Your task to perform on an android device: Go to internet settings Image 0: 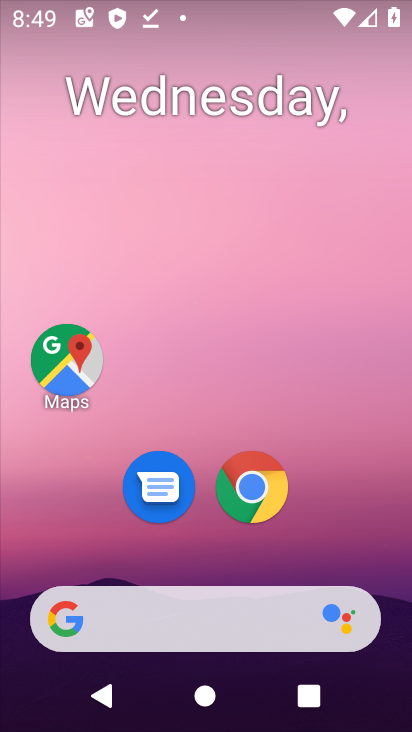
Step 0: drag from (257, 707) to (166, 5)
Your task to perform on an android device: Go to internet settings Image 1: 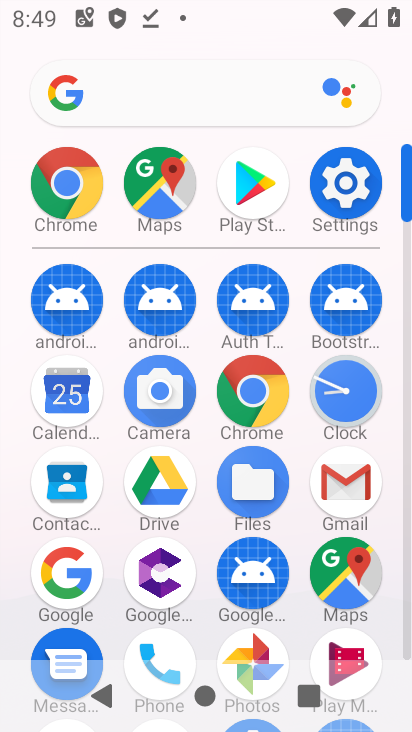
Step 1: click (348, 196)
Your task to perform on an android device: Go to internet settings Image 2: 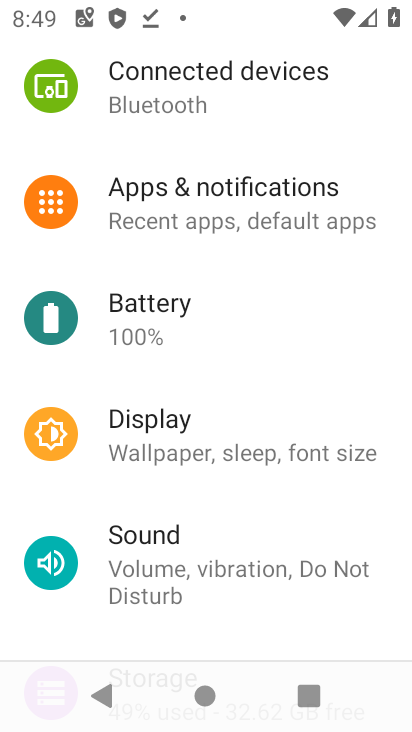
Step 2: drag from (175, 515) to (151, 179)
Your task to perform on an android device: Go to internet settings Image 3: 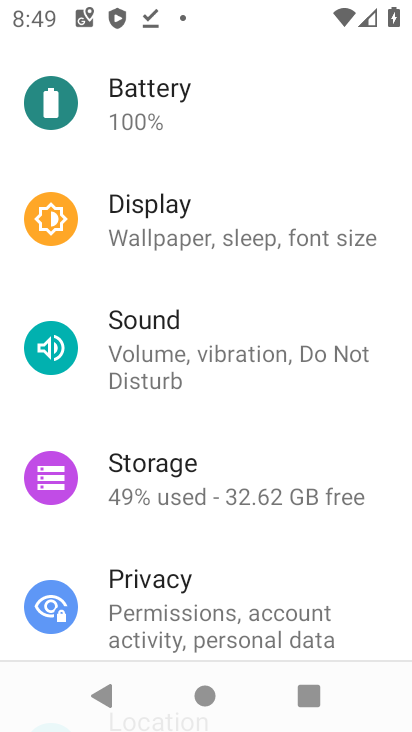
Step 3: drag from (150, 425) to (149, 120)
Your task to perform on an android device: Go to internet settings Image 4: 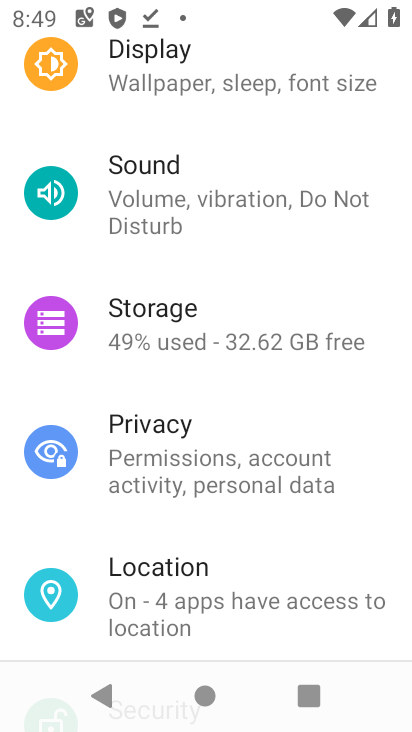
Step 4: drag from (187, 408) to (187, 138)
Your task to perform on an android device: Go to internet settings Image 5: 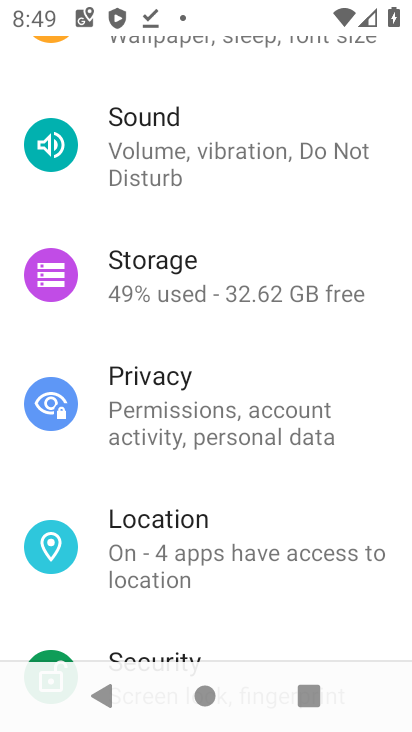
Step 5: drag from (170, 477) to (155, 257)
Your task to perform on an android device: Go to internet settings Image 6: 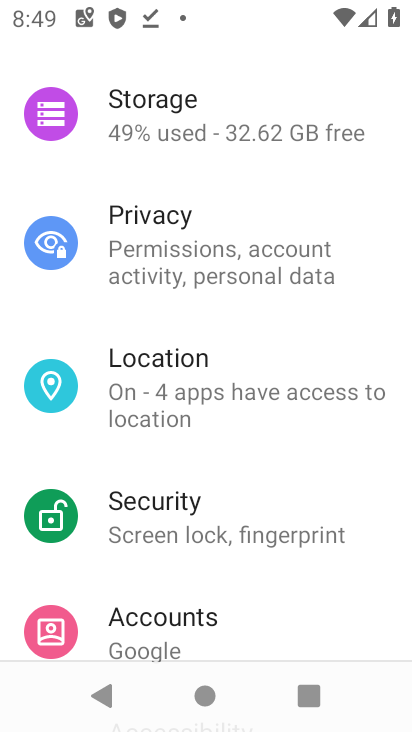
Step 6: drag from (188, 476) to (188, 251)
Your task to perform on an android device: Go to internet settings Image 7: 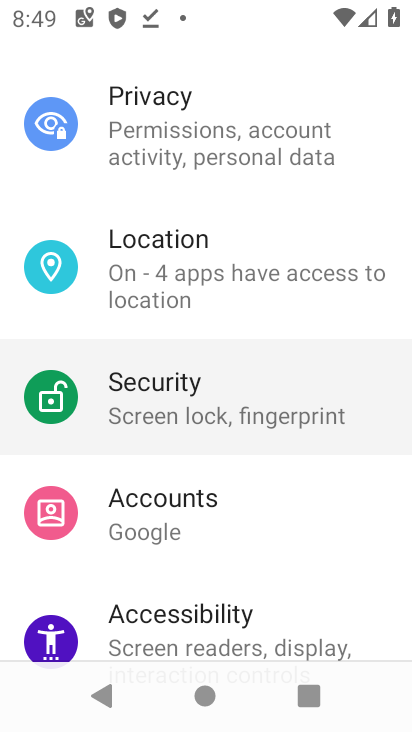
Step 7: drag from (190, 445) to (184, 116)
Your task to perform on an android device: Go to internet settings Image 8: 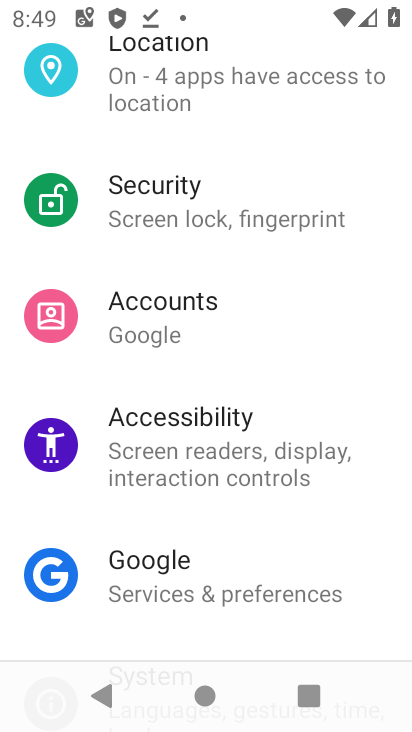
Step 8: drag from (230, 483) to (229, 149)
Your task to perform on an android device: Go to internet settings Image 9: 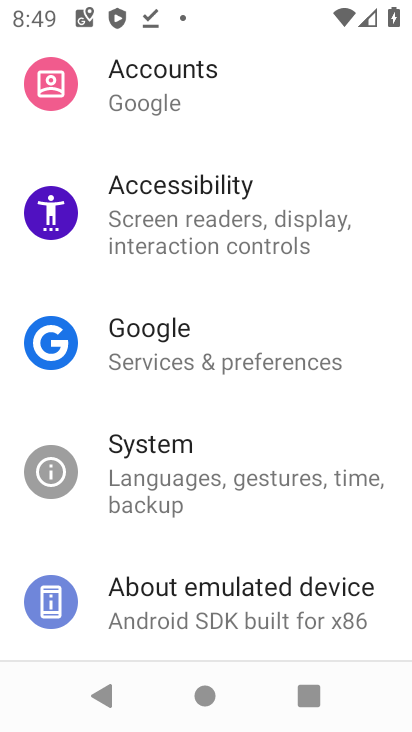
Step 9: drag from (251, 431) to (272, 79)
Your task to perform on an android device: Go to internet settings Image 10: 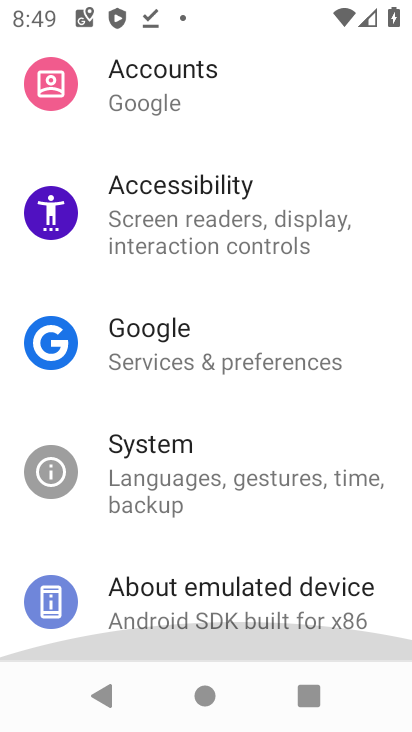
Step 10: drag from (251, 414) to (298, 18)
Your task to perform on an android device: Go to internet settings Image 11: 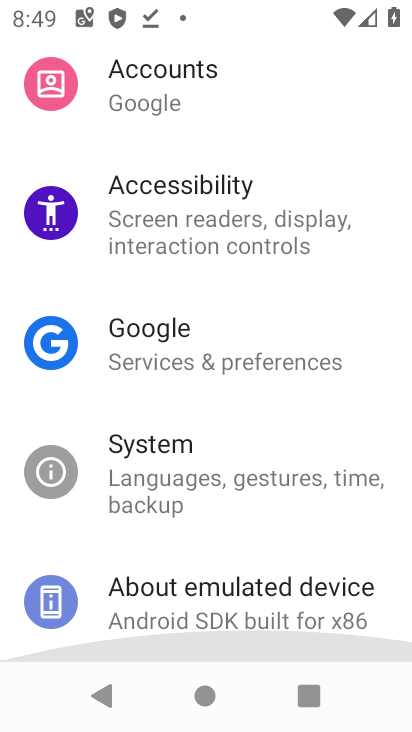
Step 11: drag from (239, 415) to (268, 145)
Your task to perform on an android device: Go to internet settings Image 12: 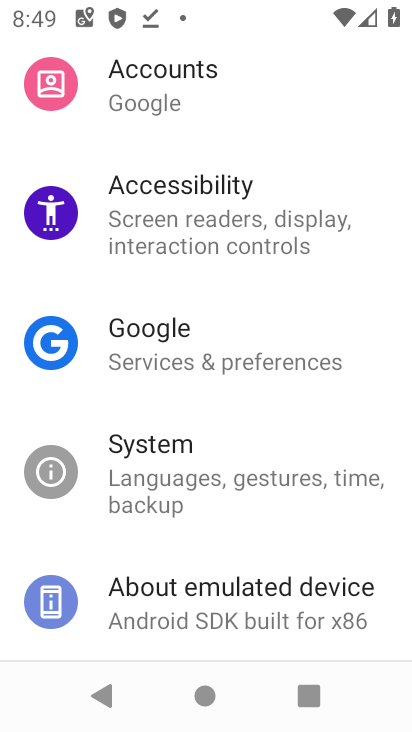
Step 12: drag from (203, 545) to (253, 8)
Your task to perform on an android device: Go to internet settings Image 13: 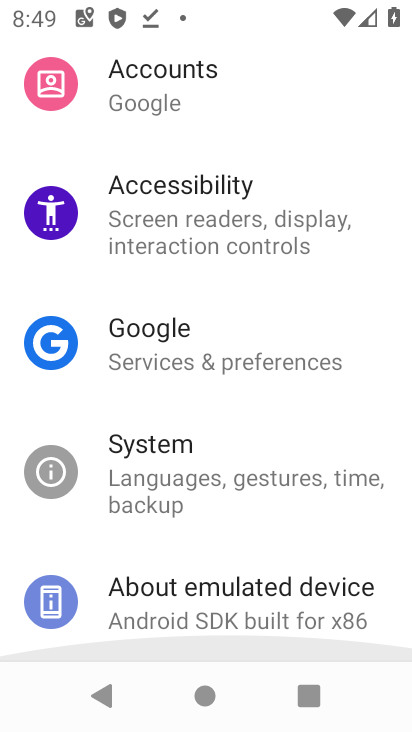
Step 13: drag from (233, 438) to (203, 187)
Your task to perform on an android device: Go to internet settings Image 14: 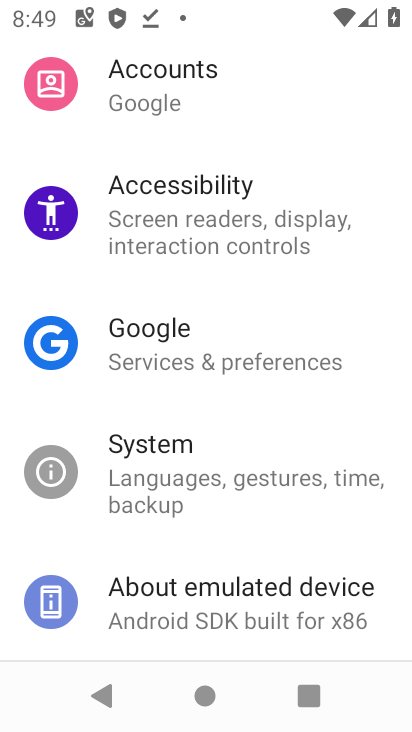
Step 14: drag from (182, 400) to (242, 617)
Your task to perform on an android device: Go to internet settings Image 15: 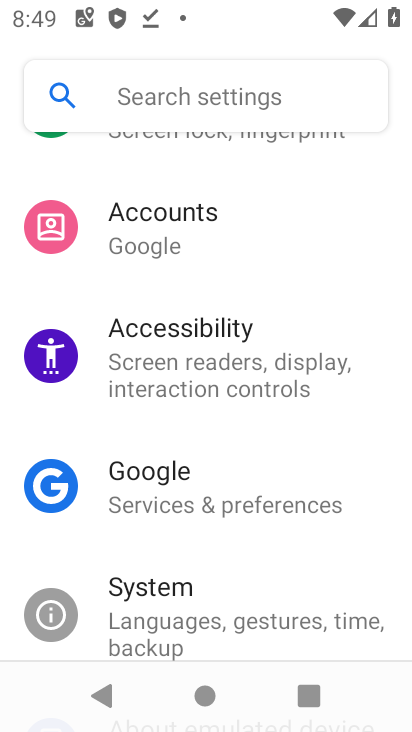
Step 15: drag from (242, 331) to (259, 635)
Your task to perform on an android device: Go to internet settings Image 16: 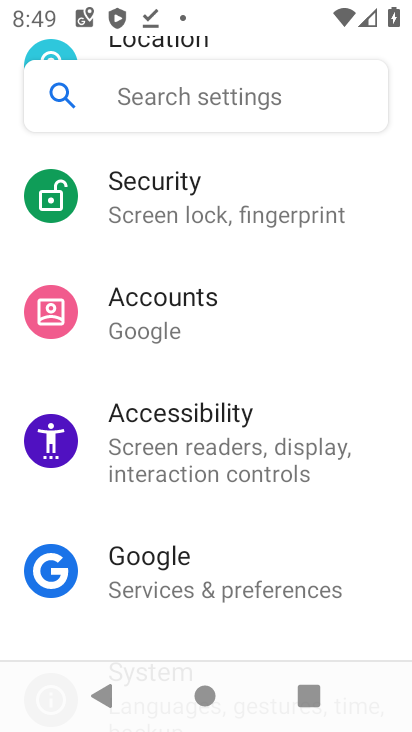
Step 16: drag from (162, 300) to (226, 511)
Your task to perform on an android device: Go to internet settings Image 17: 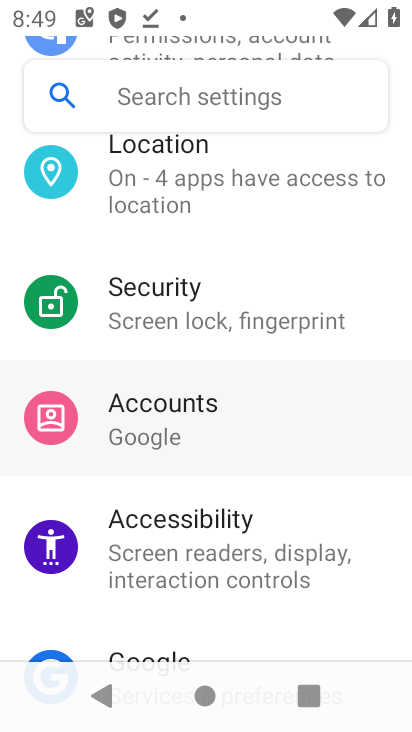
Step 17: drag from (191, 299) to (201, 698)
Your task to perform on an android device: Go to internet settings Image 18: 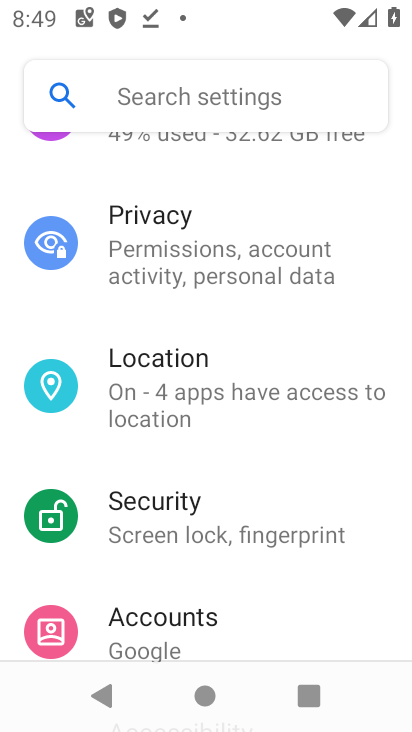
Step 18: drag from (172, 245) to (229, 561)
Your task to perform on an android device: Go to internet settings Image 19: 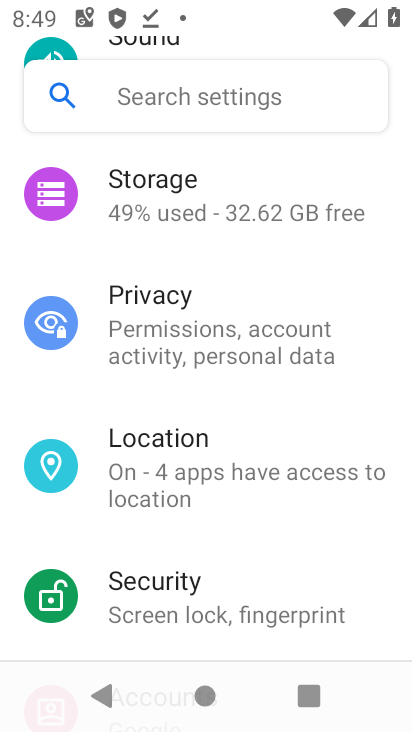
Step 19: drag from (243, 322) to (247, 503)
Your task to perform on an android device: Go to internet settings Image 20: 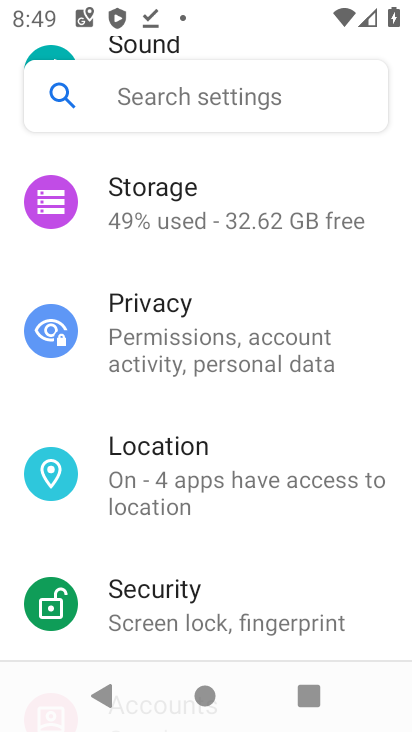
Step 20: drag from (227, 473) to (229, 643)
Your task to perform on an android device: Go to internet settings Image 21: 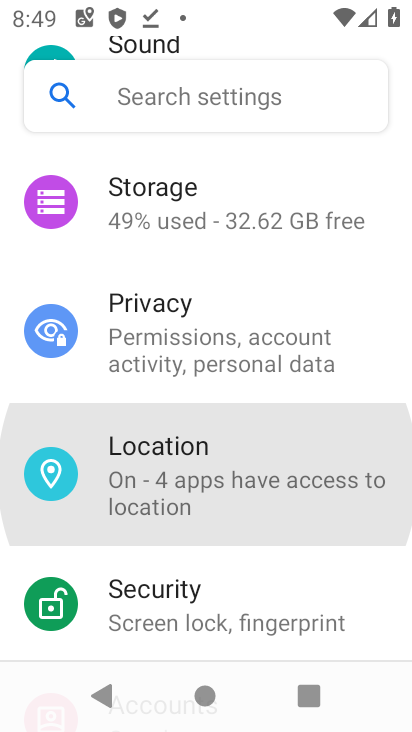
Step 21: drag from (228, 493) to (233, 571)
Your task to perform on an android device: Go to internet settings Image 22: 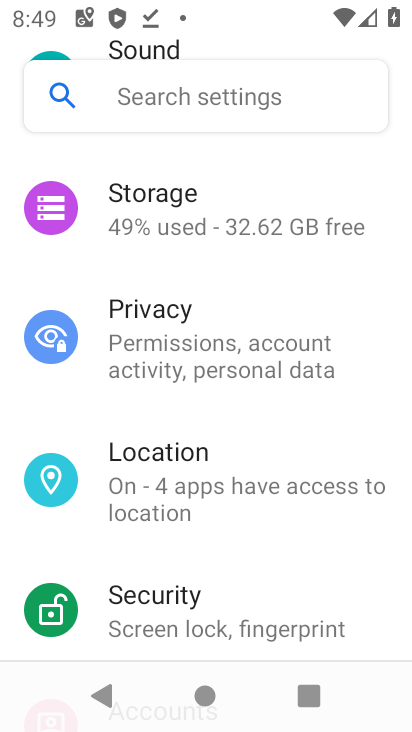
Step 22: drag from (180, 517) to (187, 581)
Your task to perform on an android device: Go to internet settings Image 23: 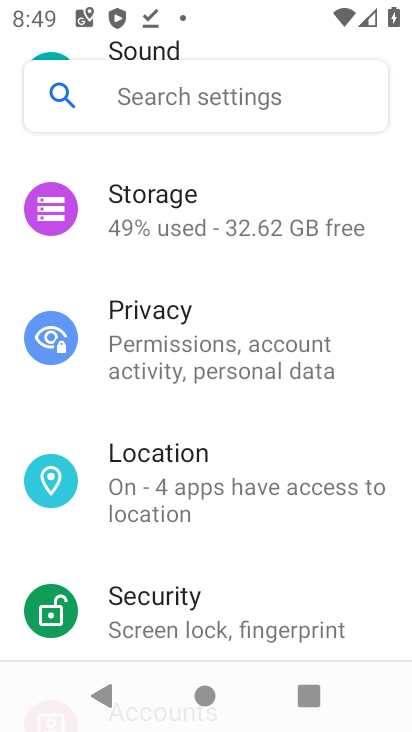
Step 23: drag from (149, 283) to (225, 547)
Your task to perform on an android device: Go to internet settings Image 24: 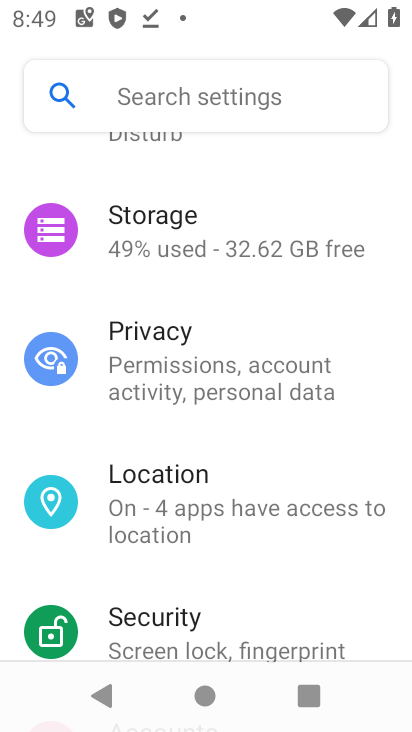
Step 24: drag from (216, 283) to (251, 525)
Your task to perform on an android device: Go to internet settings Image 25: 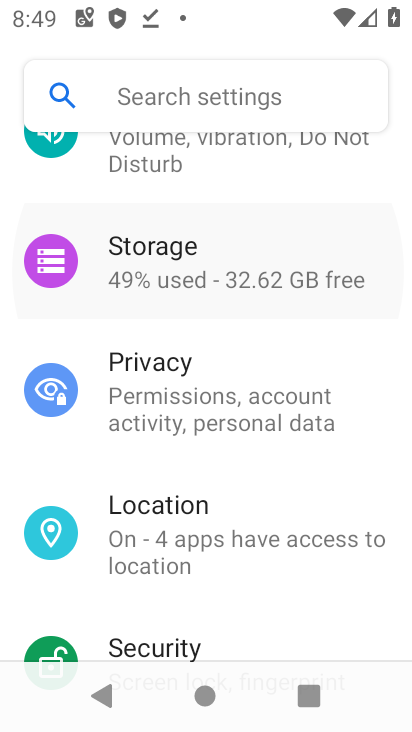
Step 25: drag from (230, 249) to (261, 505)
Your task to perform on an android device: Go to internet settings Image 26: 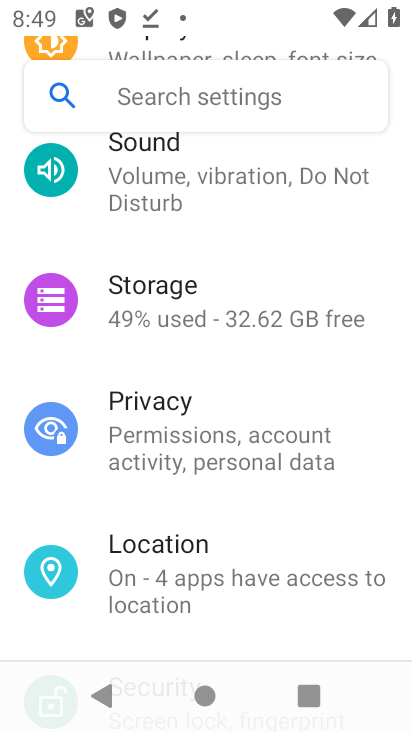
Step 26: drag from (176, 209) to (217, 534)
Your task to perform on an android device: Go to internet settings Image 27: 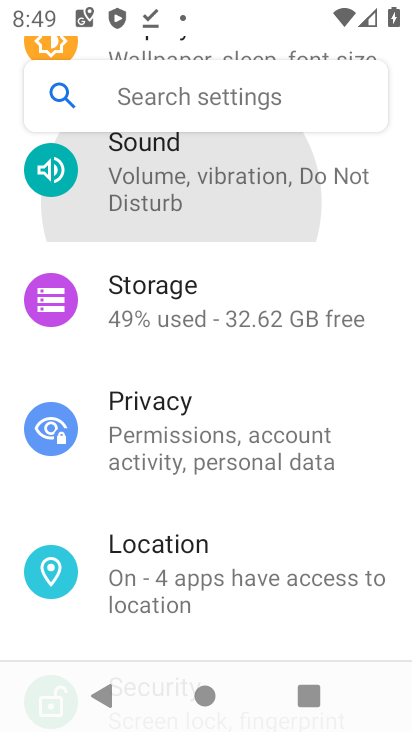
Step 27: drag from (176, 252) to (205, 640)
Your task to perform on an android device: Go to internet settings Image 28: 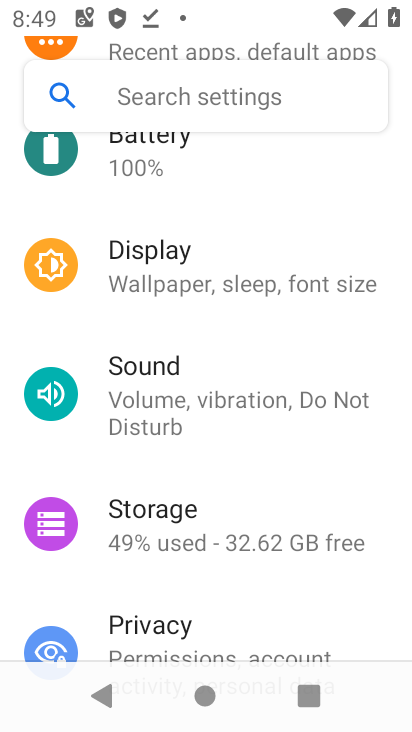
Step 28: drag from (107, 291) to (170, 572)
Your task to perform on an android device: Go to internet settings Image 29: 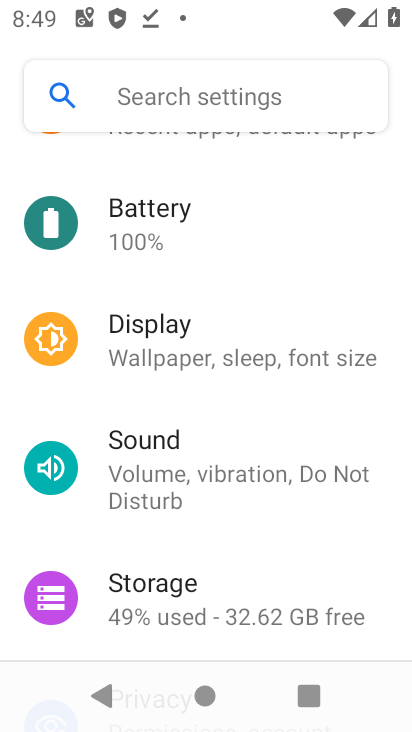
Step 29: click (210, 551)
Your task to perform on an android device: Go to internet settings Image 30: 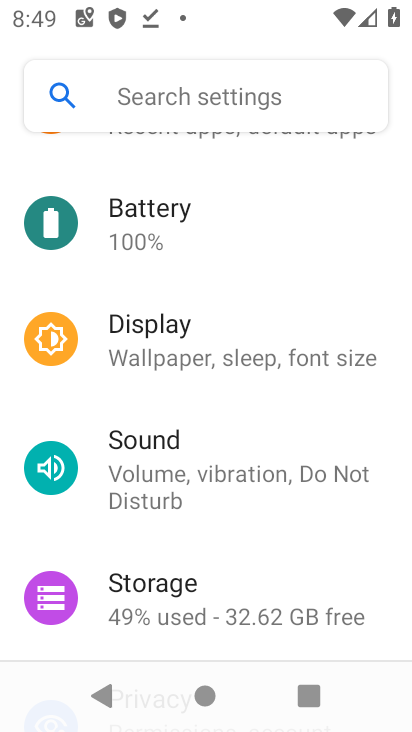
Step 30: drag from (137, 185) to (198, 569)
Your task to perform on an android device: Go to internet settings Image 31: 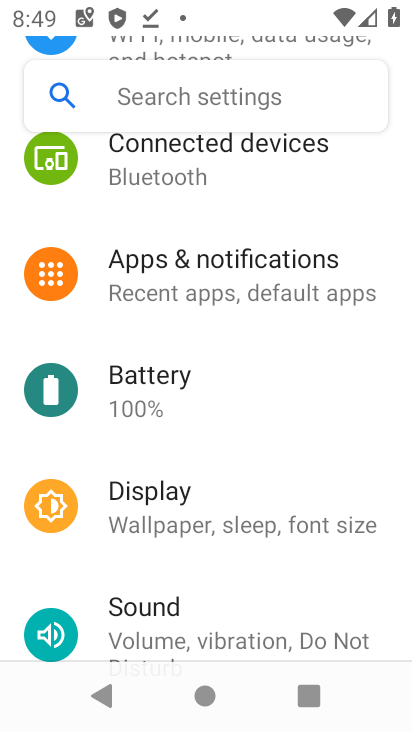
Step 31: drag from (240, 367) to (269, 534)
Your task to perform on an android device: Go to internet settings Image 32: 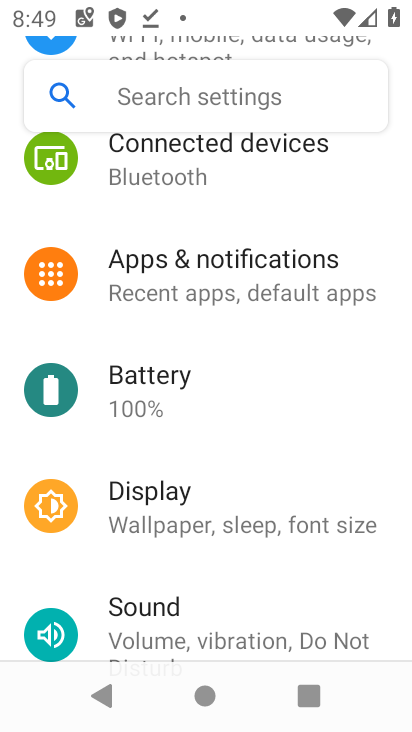
Step 32: drag from (231, 237) to (316, 579)
Your task to perform on an android device: Go to internet settings Image 33: 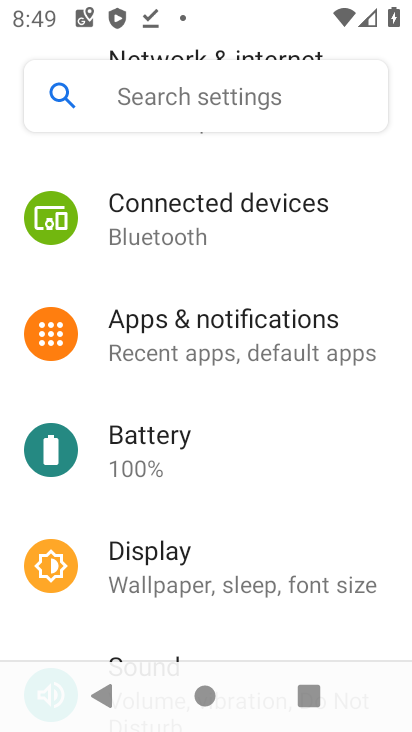
Step 33: drag from (190, 239) to (251, 491)
Your task to perform on an android device: Go to internet settings Image 34: 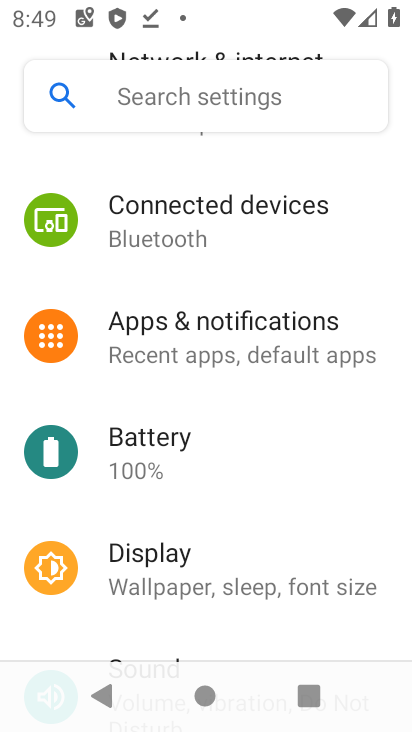
Step 34: drag from (200, 173) to (238, 429)
Your task to perform on an android device: Go to internet settings Image 35: 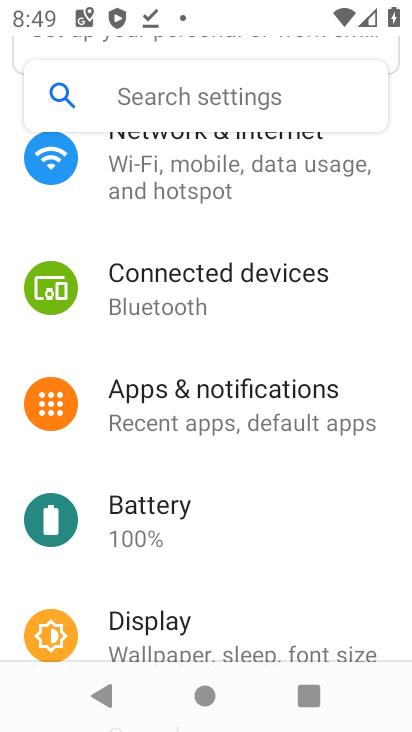
Step 35: drag from (226, 315) to (255, 544)
Your task to perform on an android device: Go to internet settings Image 36: 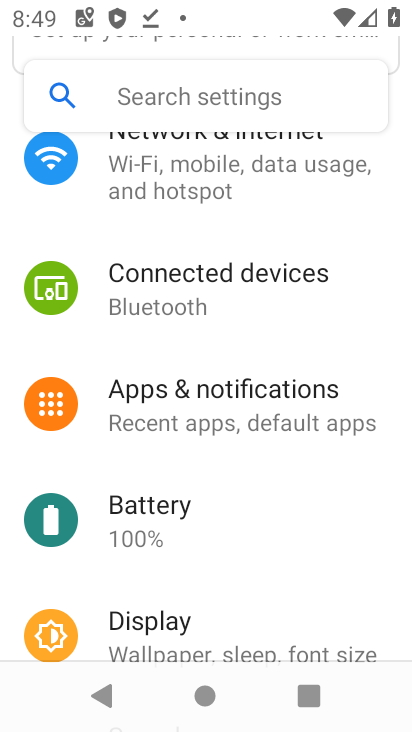
Step 36: drag from (199, 287) to (240, 584)
Your task to perform on an android device: Go to internet settings Image 37: 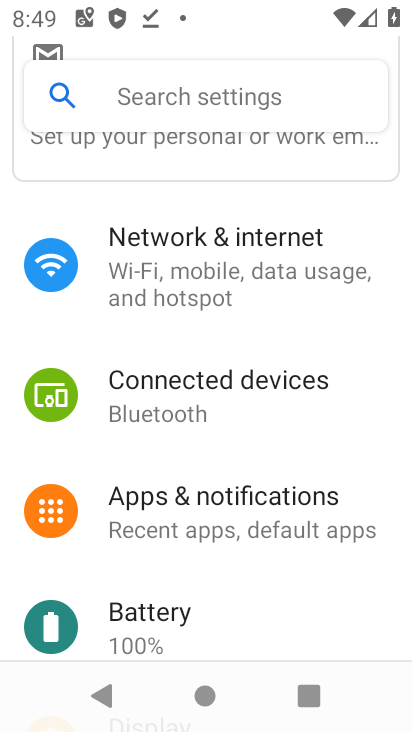
Step 37: drag from (235, 521) to (245, 556)
Your task to perform on an android device: Go to internet settings Image 38: 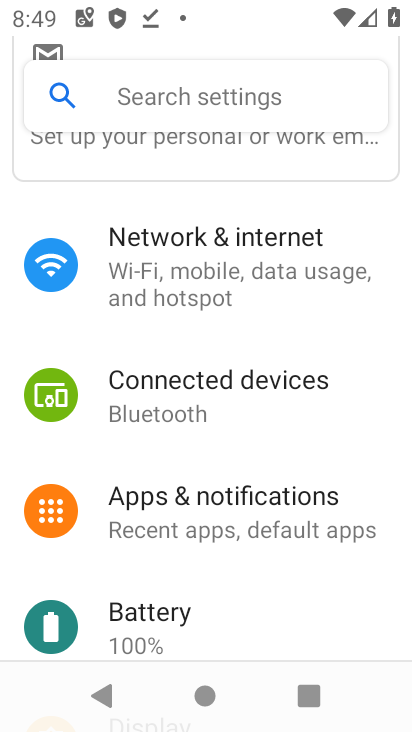
Step 38: drag from (241, 269) to (311, 532)
Your task to perform on an android device: Go to internet settings Image 39: 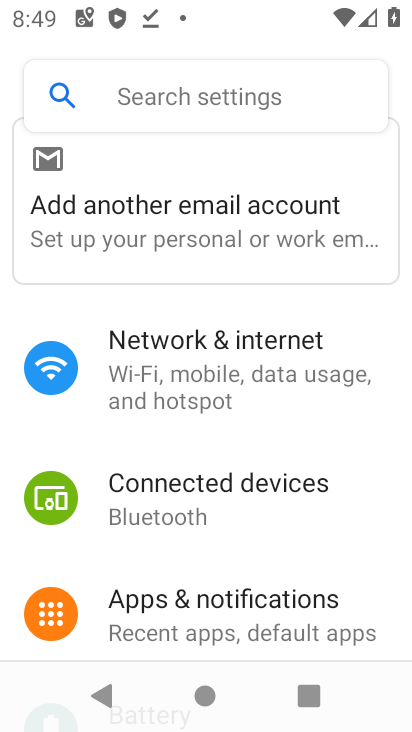
Step 39: drag from (245, 426) to (278, 555)
Your task to perform on an android device: Go to internet settings Image 40: 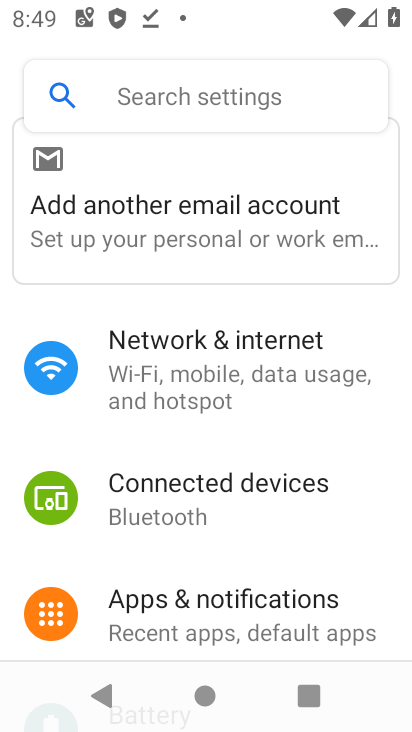
Step 40: click (200, 367)
Your task to perform on an android device: Go to internet settings Image 41: 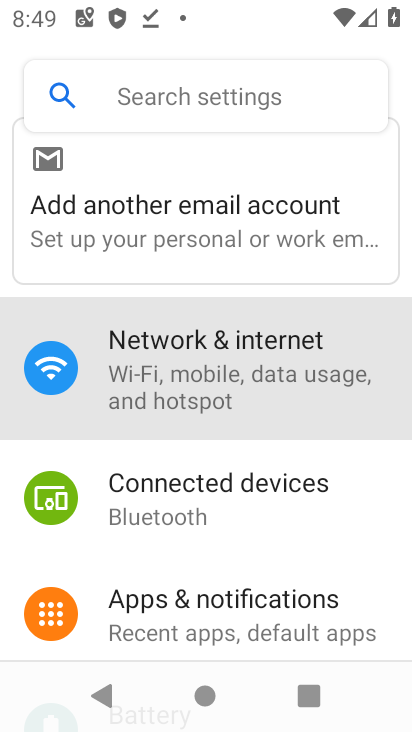
Step 41: click (200, 367)
Your task to perform on an android device: Go to internet settings Image 42: 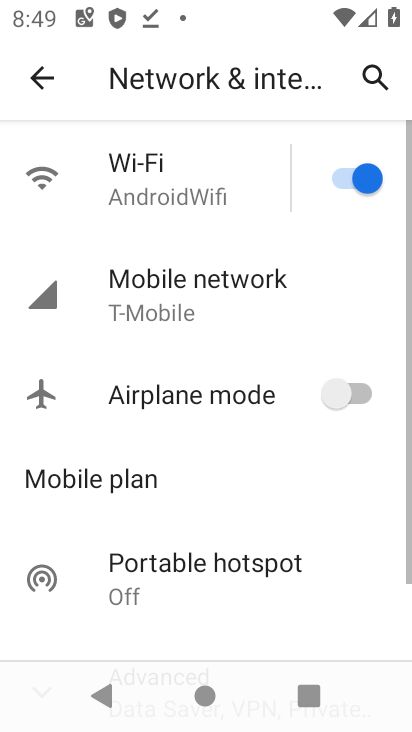
Step 42: click (200, 367)
Your task to perform on an android device: Go to internet settings Image 43: 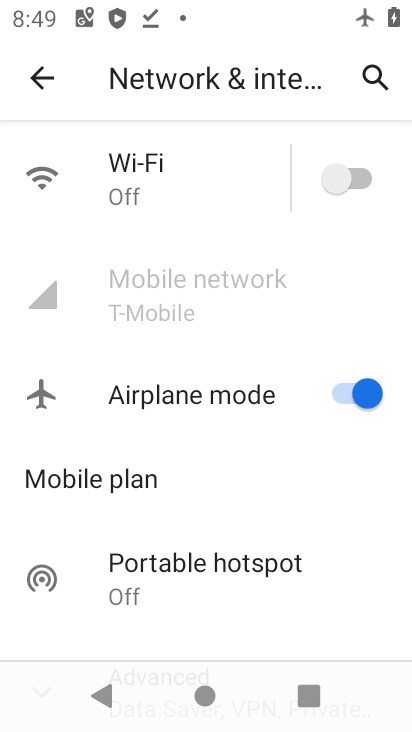
Step 43: click (337, 191)
Your task to perform on an android device: Go to internet settings Image 44: 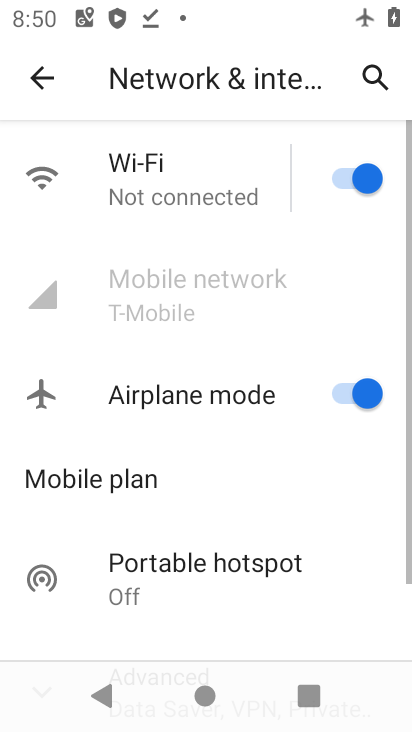
Step 44: click (366, 398)
Your task to perform on an android device: Go to internet settings Image 45: 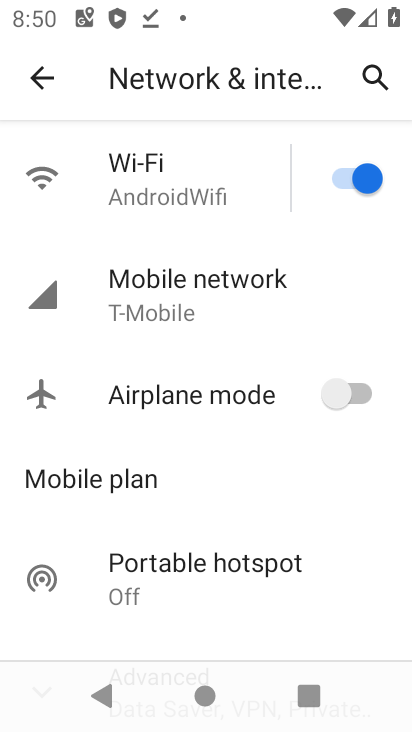
Step 45: task complete